Your task to perform on an android device: Open Google Maps and go to "Timeline" Image 0: 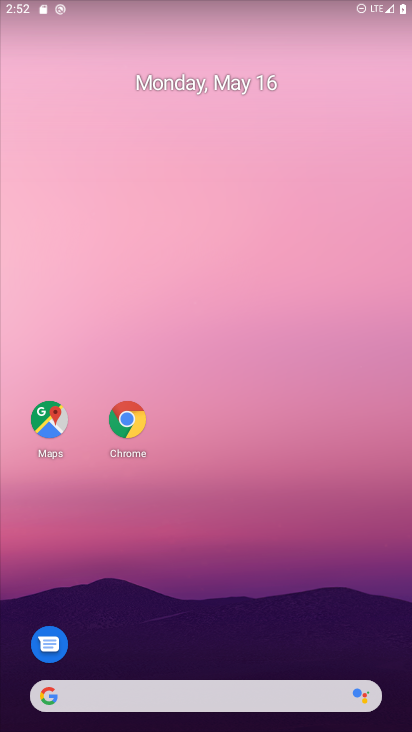
Step 0: drag from (181, 566) to (186, 91)
Your task to perform on an android device: Open Google Maps and go to "Timeline" Image 1: 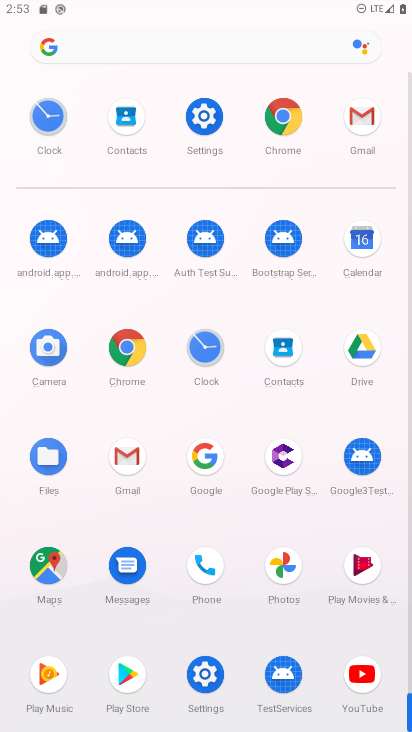
Step 1: click (45, 567)
Your task to perform on an android device: Open Google Maps and go to "Timeline" Image 2: 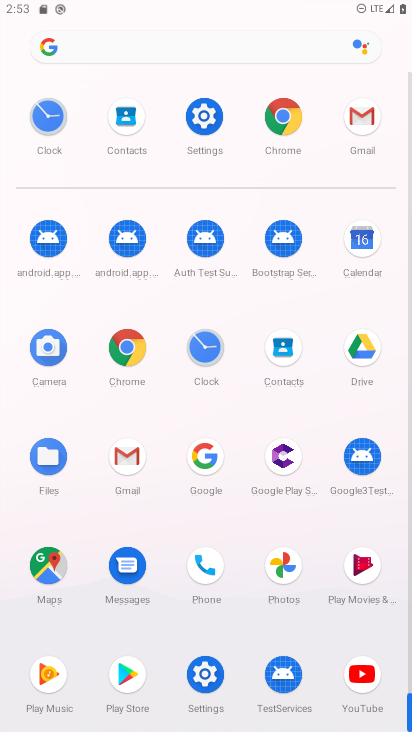
Step 2: click (47, 566)
Your task to perform on an android device: Open Google Maps and go to "Timeline" Image 3: 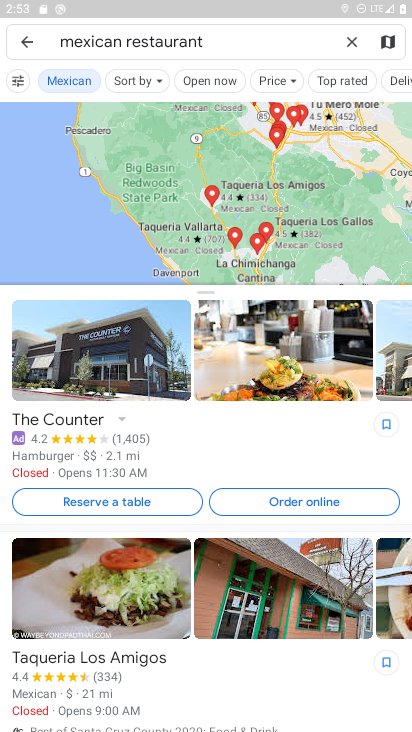
Step 3: click (23, 41)
Your task to perform on an android device: Open Google Maps and go to "Timeline" Image 4: 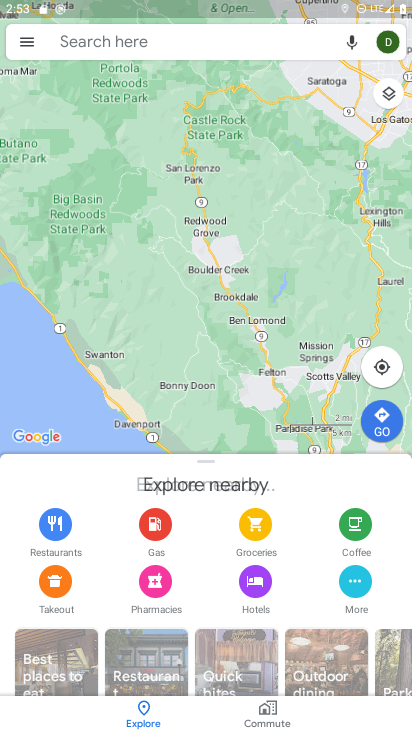
Step 4: click (25, 44)
Your task to perform on an android device: Open Google Maps and go to "Timeline" Image 5: 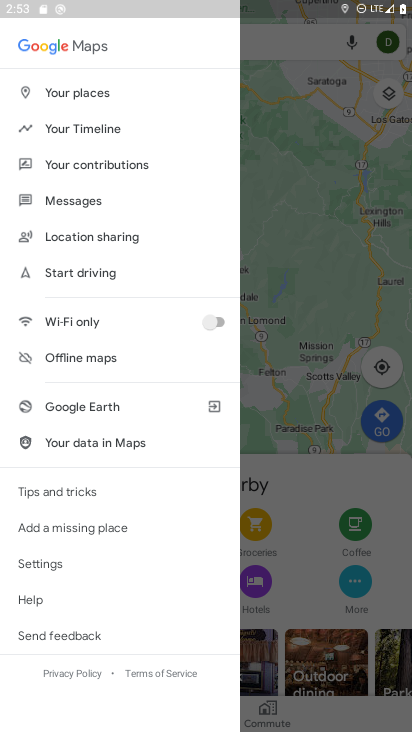
Step 5: click (106, 120)
Your task to perform on an android device: Open Google Maps and go to "Timeline" Image 6: 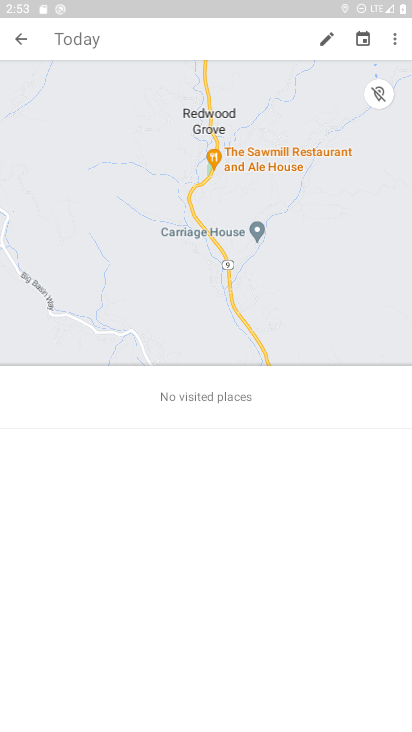
Step 6: task complete